Your task to perform on an android device: Open Youtube and go to the subscriptions tab Image 0: 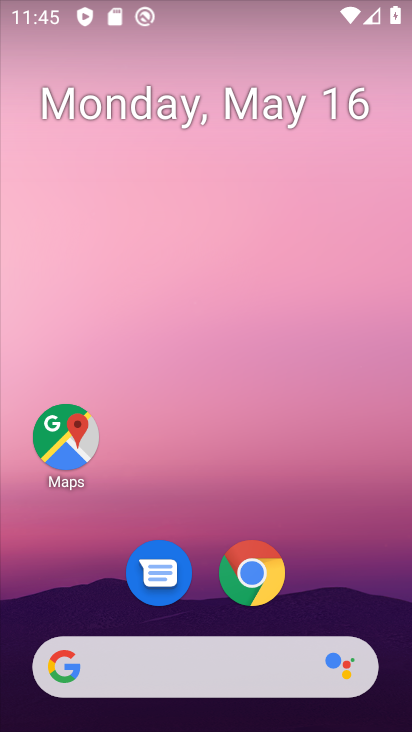
Step 0: drag from (208, 370) to (160, 60)
Your task to perform on an android device: Open Youtube and go to the subscriptions tab Image 1: 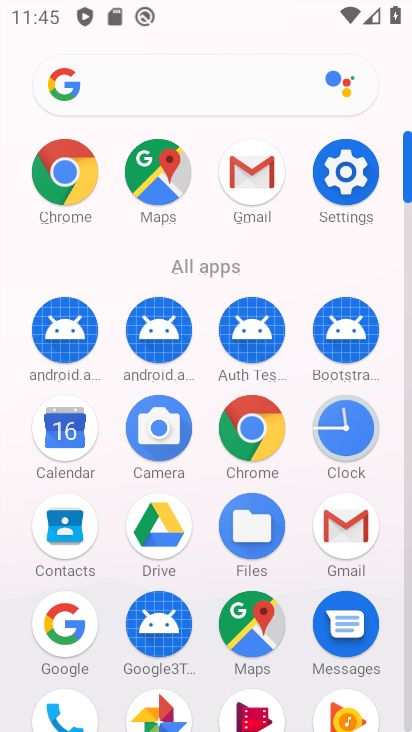
Step 1: drag from (207, 675) to (146, 236)
Your task to perform on an android device: Open Youtube and go to the subscriptions tab Image 2: 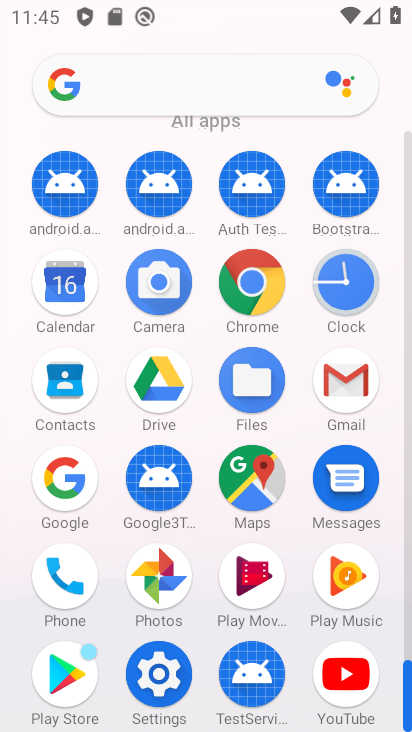
Step 2: click (345, 683)
Your task to perform on an android device: Open Youtube and go to the subscriptions tab Image 3: 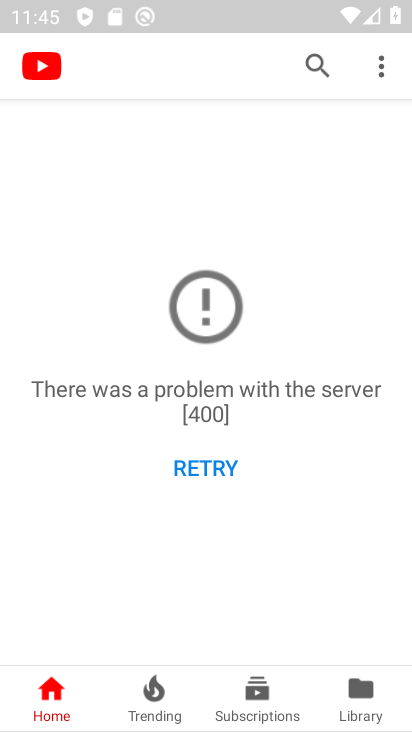
Step 3: click (262, 688)
Your task to perform on an android device: Open Youtube and go to the subscriptions tab Image 4: 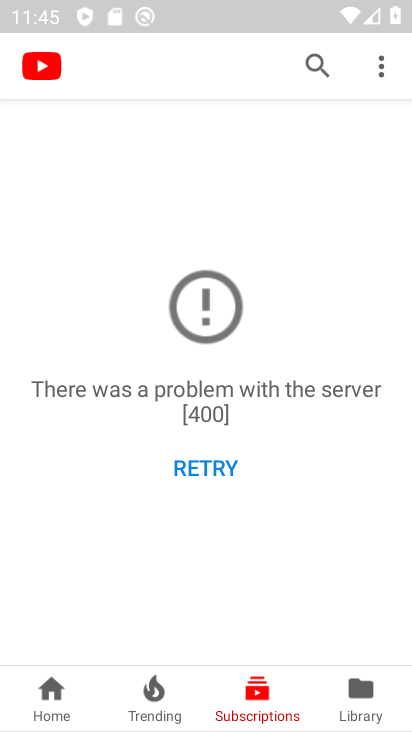
Step 4: task complete